Your task to perform on an android device: Open my contact list Image 0: 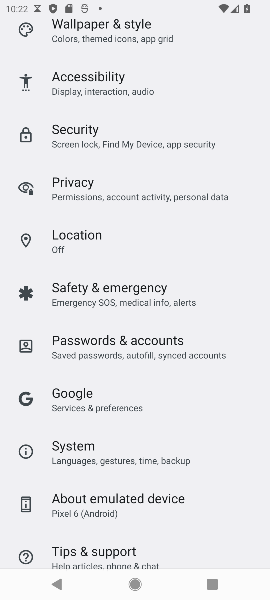
Step 0: press home button
Your task to perform on an android device: Open my contact list Image 1: 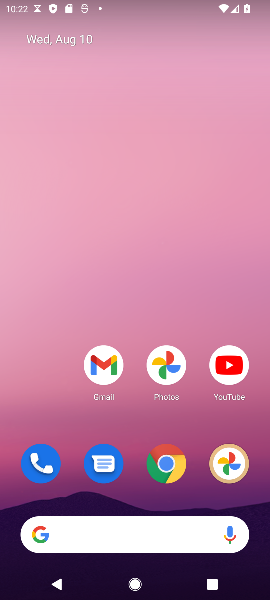
Step 1: click (43, 477)
Your task to perform on an android device: Open my contact list Image 2: 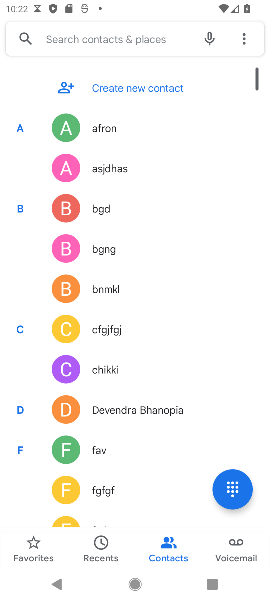
Step 2: task complete